Your task to perform on an android device: toggle translation in the chrome app Image 0: 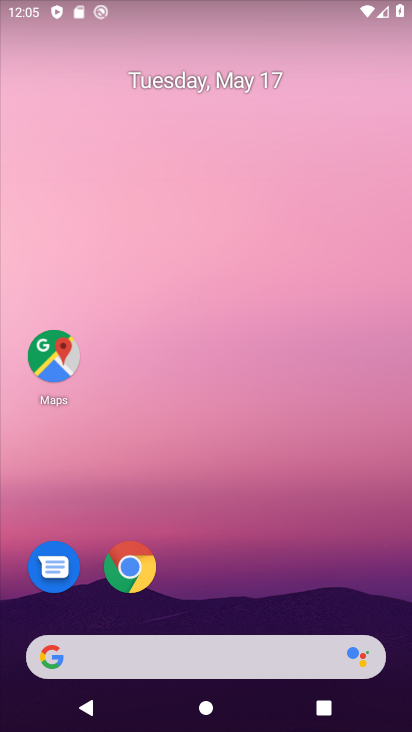
Step 0: click (124, 562)
Your task to perform on an android device: toggle translation in the chrome app Image 1: 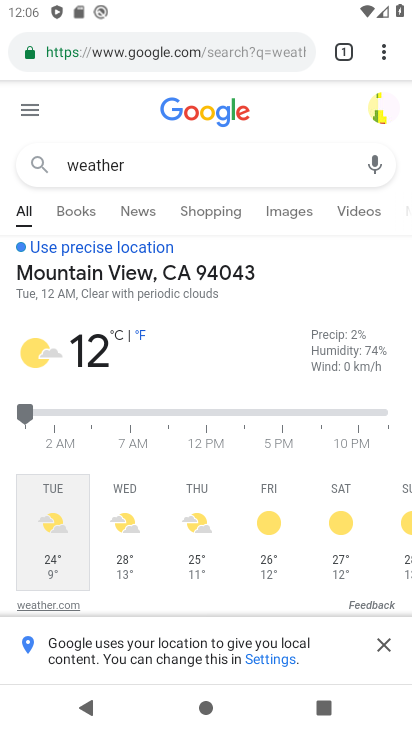
Step 1: press home button
Your task to perform on an android device: toggle translation in the chrome app Image 2: 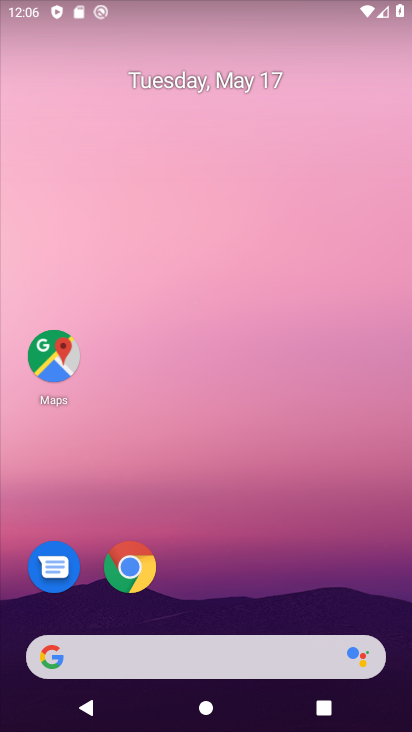
Step 2: click (121, 573)
Your task to perform on an android device: toggle translation in the chrome app Image 3: 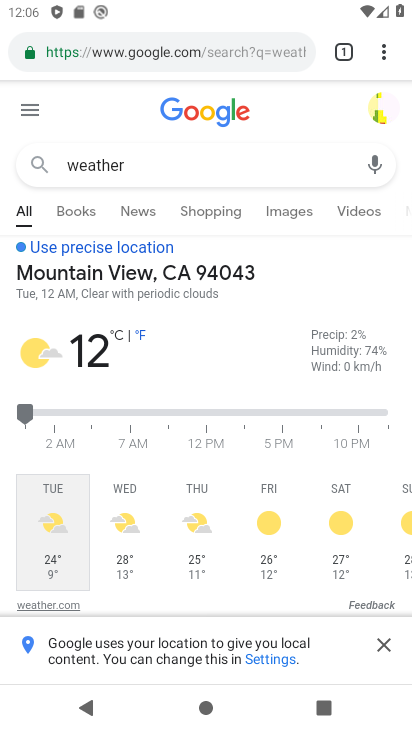
Step 3: click (380, 41)
Your task to perform on an android device: toggle translation in the chrome app Image 4: 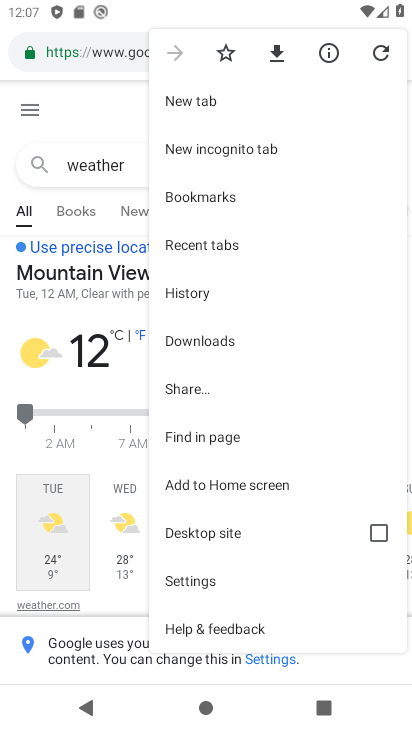
Step 4: click (213, 579)
Your task to perform on an android device: toggle translation in the chrome app Image 5: 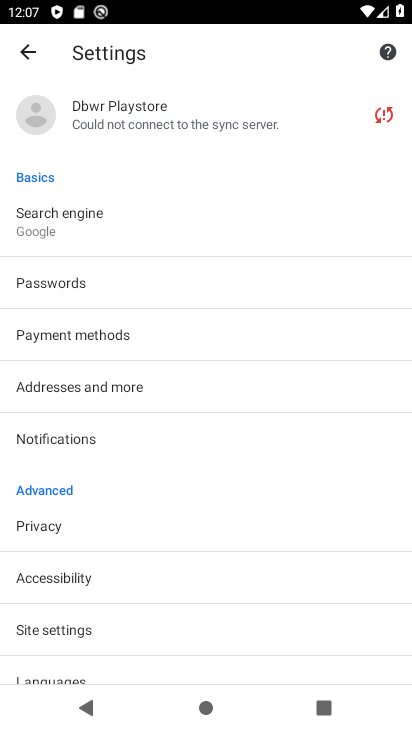
Step 5: click (52, 681)
Your task to perform on an android device: toggle translation in the chrome app Image 6: 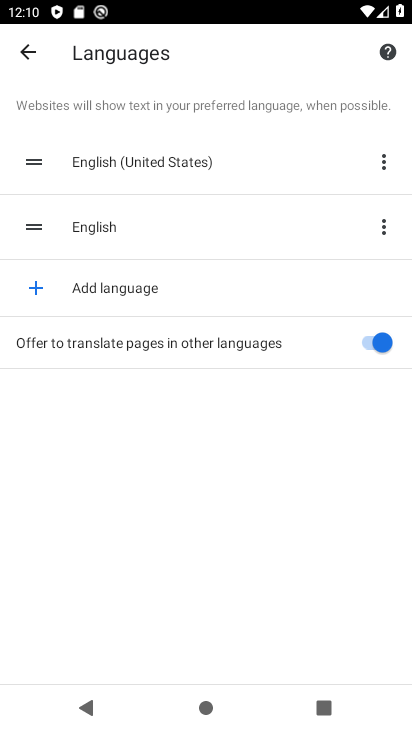
Step 6: click (366, 334)
Your task to perform on an android device: toggle translation in the chrome app Image 7: 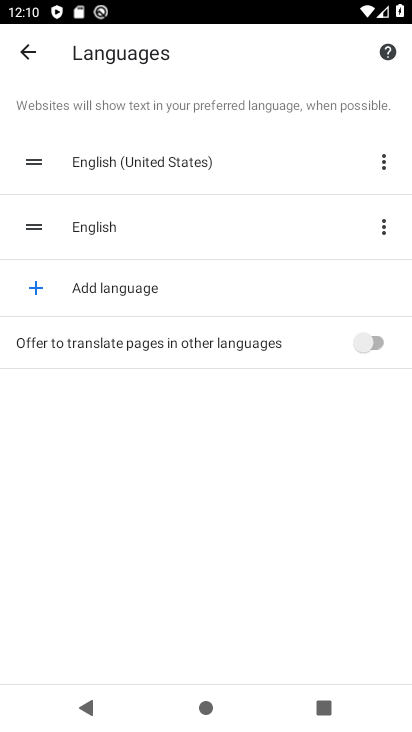
Step 7: task complete